Your task to perform on an android device: Open Wikipedia Image 0: 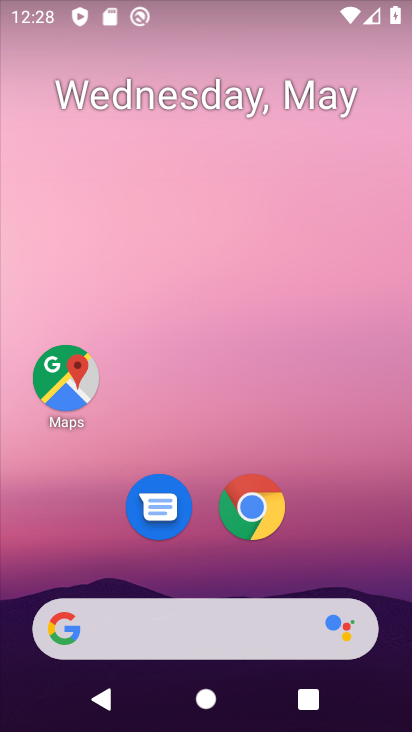
Step 0: click (251, 507)
Your task to perform on an android device: Open Wikipedia Image 1: 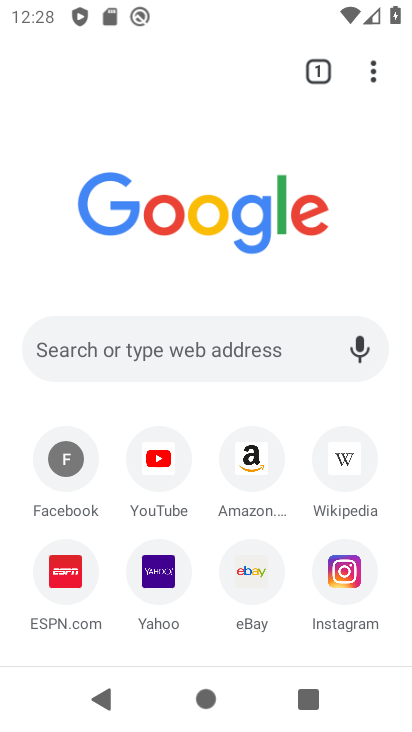
Step 1: click (336, 452)
Your task to perform on an android device: Open Wikipedia Image 2: 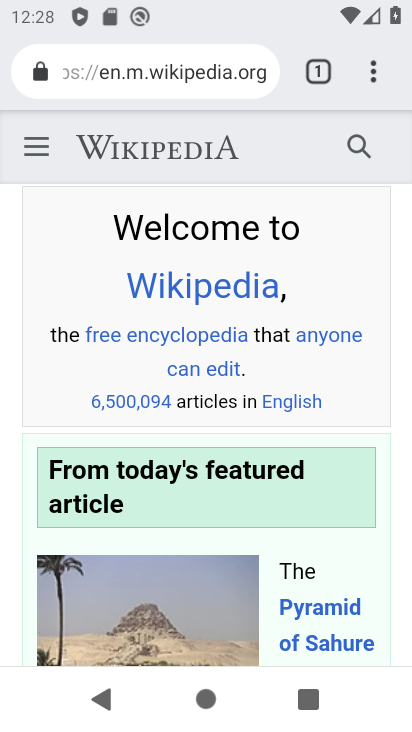
Step 2: task complete